Your task to perform on an android device: change the clock display to show seconds Image 0: 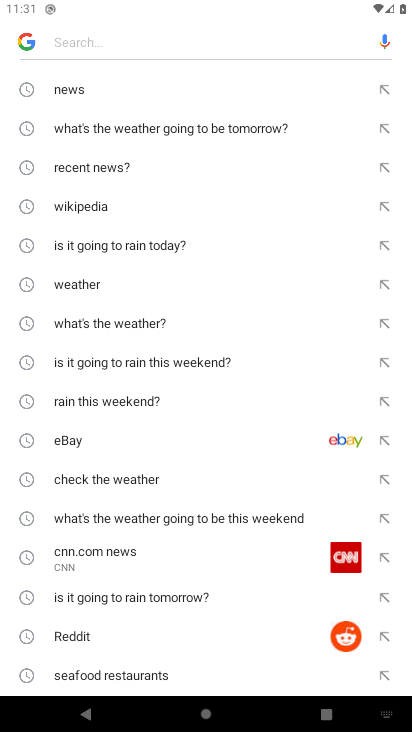
Step 0: press home button
Your task to perform on an android device: change the clock display to show seconds Image 1: 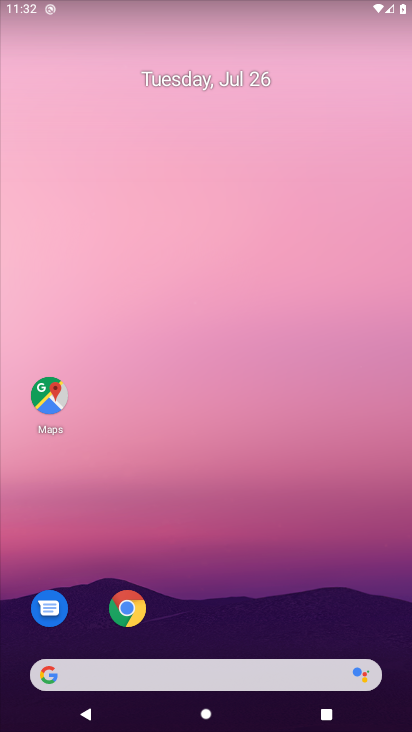
Step 1: drag from (301, 582) to (239, 115)
Your task to perform on an android device: change the clock display to show seconds Image 2: 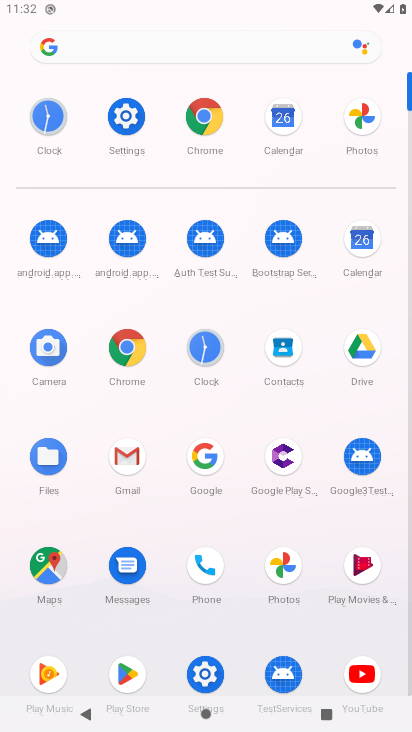
Step 2: click (200, 345)
Your task to perform on an android device: change the clock display to show seconds Image 3: 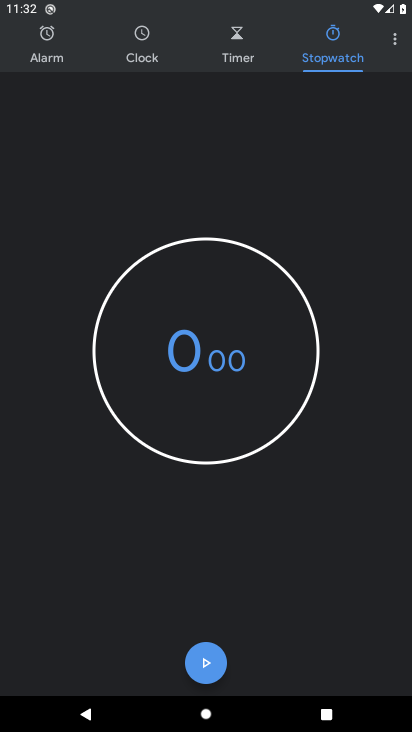
Step 3: click (394, 43)
Your task to perform on an android device: change the clock display to show seconds Image 4: 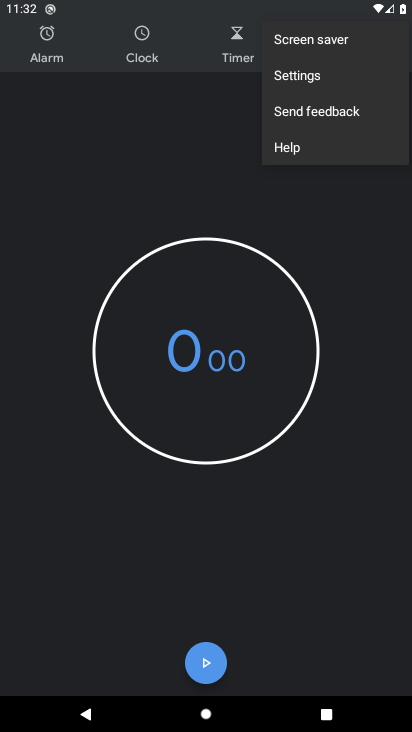
Step 4: click (300, 75)
Your task to perform on an android device: change the clock display to show seconds Image 5: 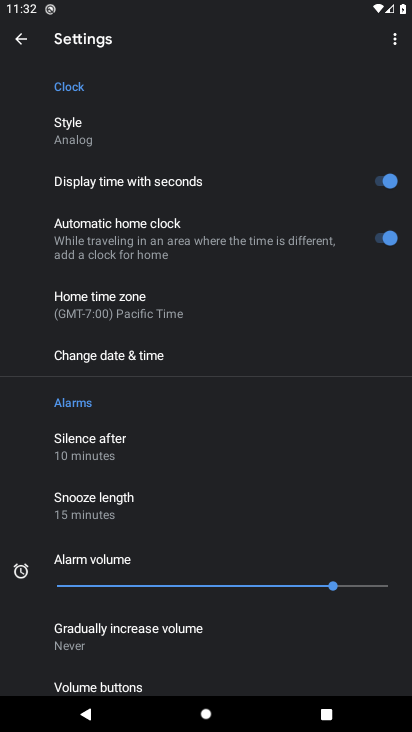
Step 5: task complete